Your task to perform on an android device: check storage Image 0: 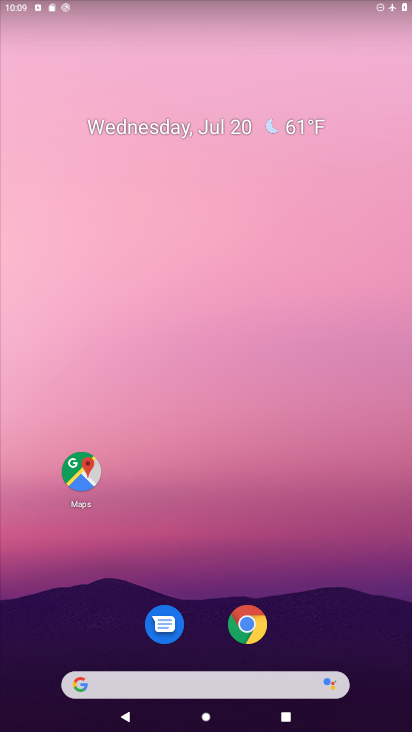
Step 0: drag from (208, 610) to (220, 176)
Your task to perform on an android device: check storage Image 1: 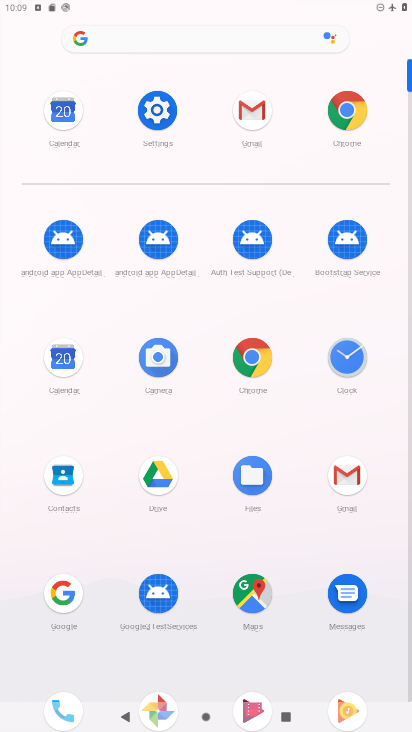
Step 1: click (143, 115)
Your task to perform on an android device: check storage Image 2: 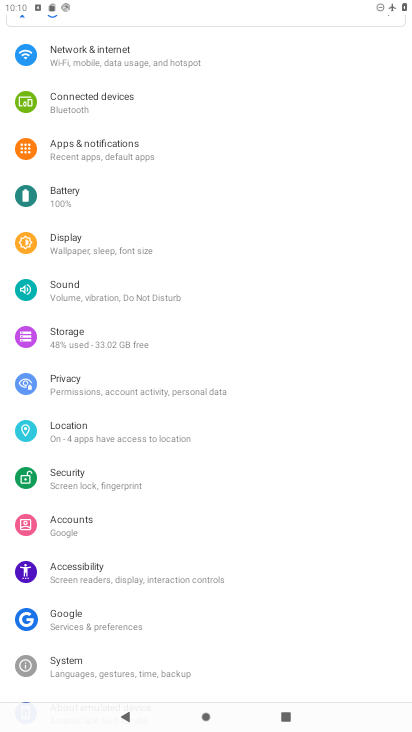
Step 2: click (89, 340)
Your task to perform on an android device: check storage Image 3: 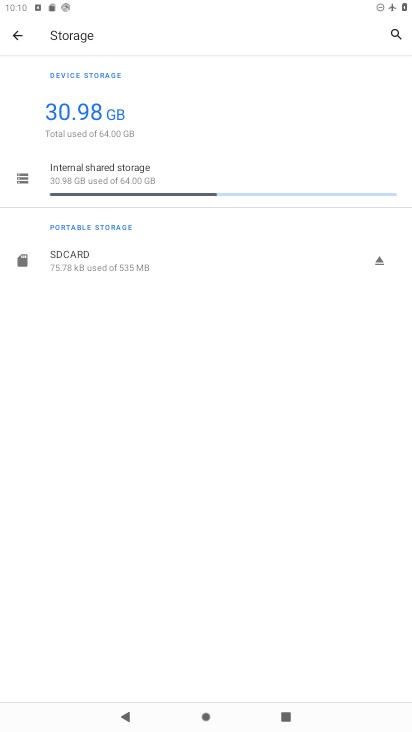
Step 3: task complete